Your task to perform on an android device: change timer sound Image 0: 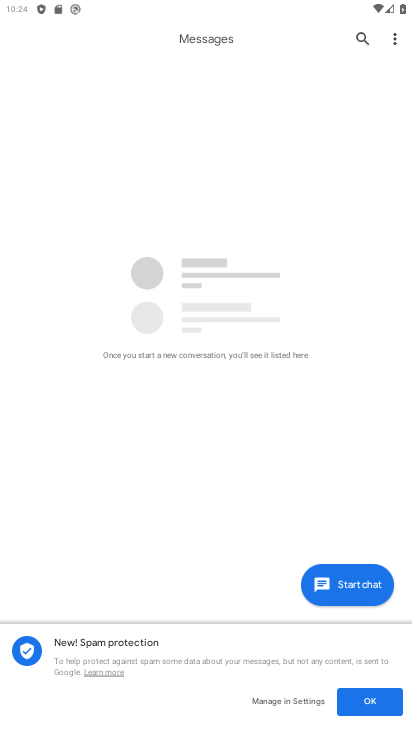
Step 0: press home button
Your task to perform on an android device: change timer sound Image 1: 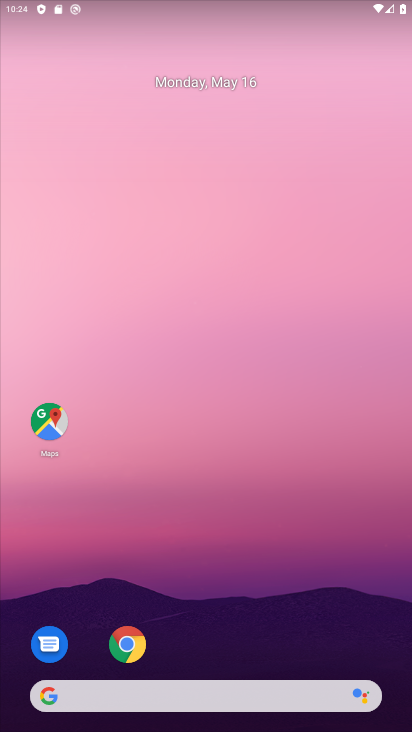
Step 1: drag from (210, 725) to (194, 198)
Your task to perform on an android device: change timer sound Image 2: 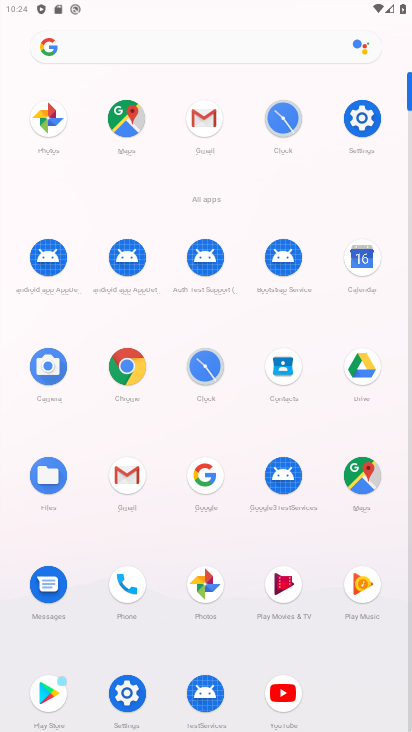
Step 2: click (206, 374)
Your task to perform on an android device: change timer sound Image 3: 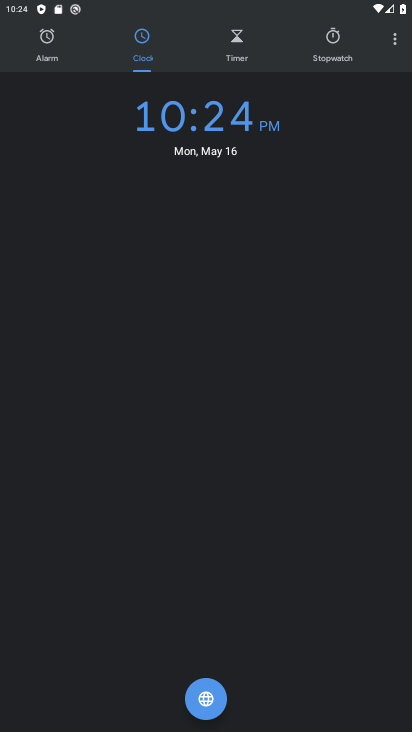
Step 3: click (395, 41)
Your task to perform on an android device: change timer sound Image 4: 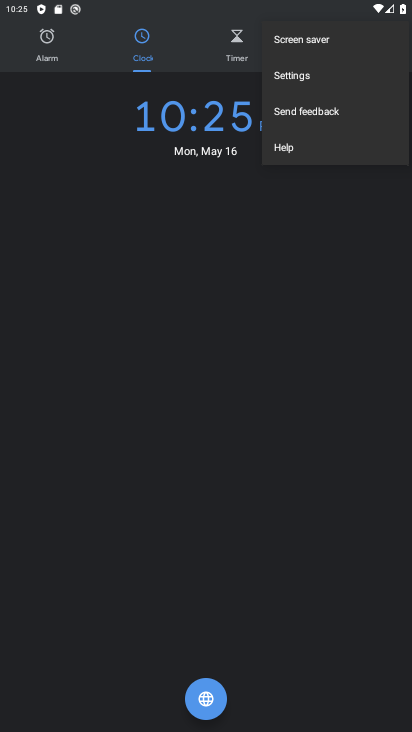
Step 4: click (283, 74)
Your task to perform on an android device: change timer sound Image 5: 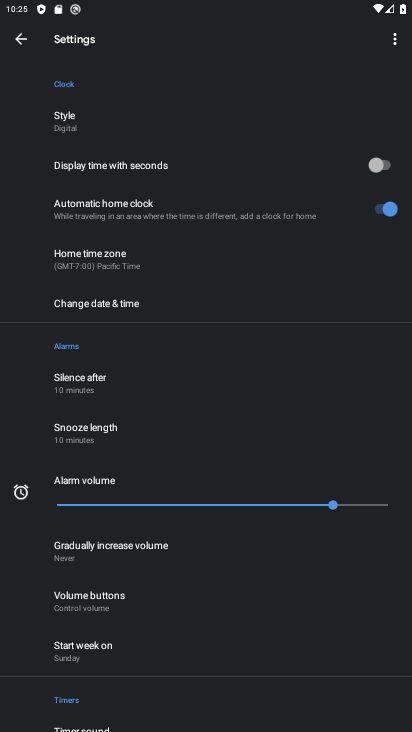
Step 5: drag from (133, 688) to (170, 312)
Your task to perform on an android device: change timer sound Image 6: 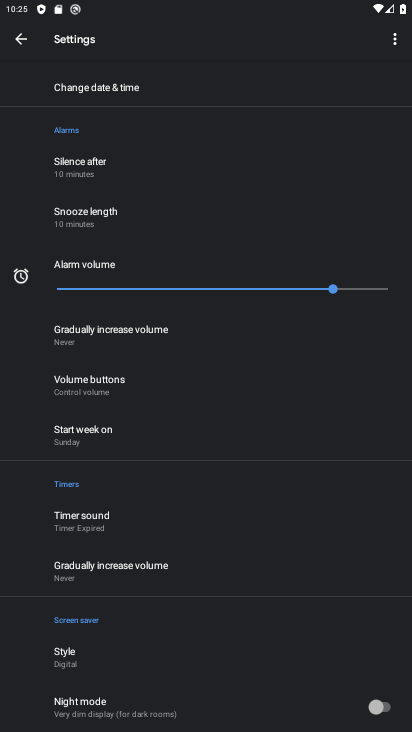
Step 6: click (73, 517)
Your task to perform on an android device: change timer sound Image 7: 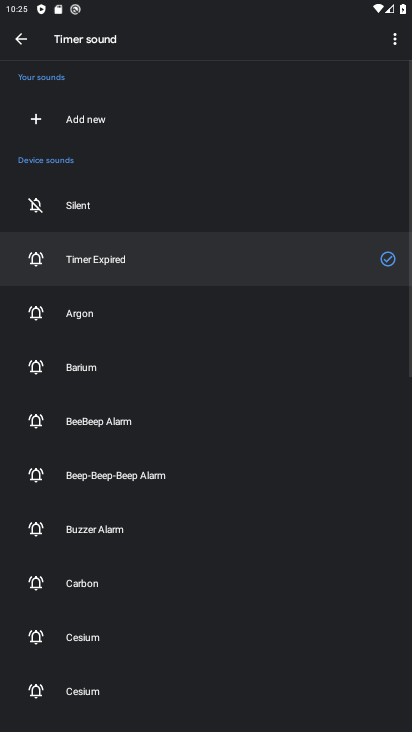
Step 7: click (84, 476)
Your task to perform on an android device: change timer sound Image 8: 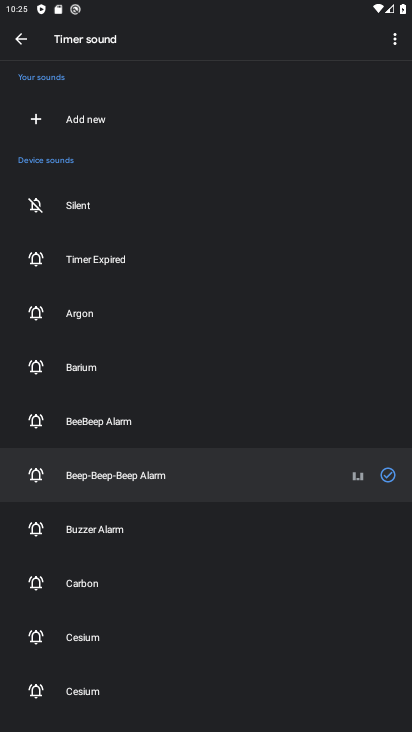
Step 8: task complete